Your task to perform on an android device: find which apps use the phone's location Image 0: 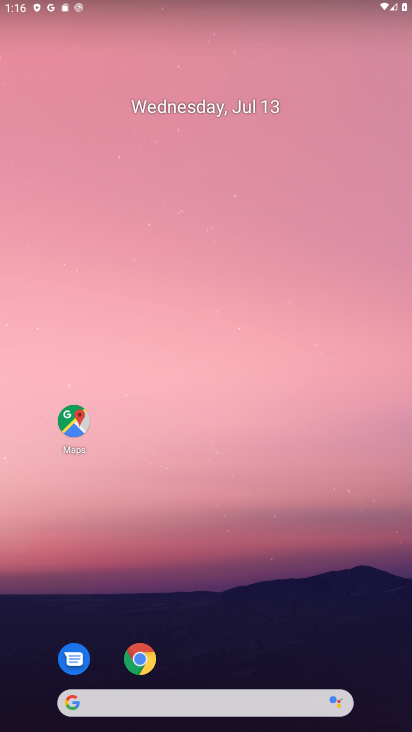
Step 0: drag from (249, 653) to (242, 127)
Your task to perform on an android device: find which apps use the phone's location Image 1: 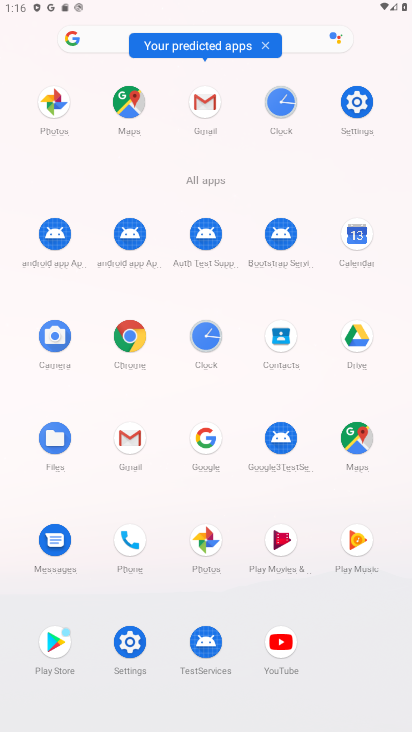
Step 1: click (355, 107)
Your task to perform on an android device: find which apps use the phone's location Image 2: 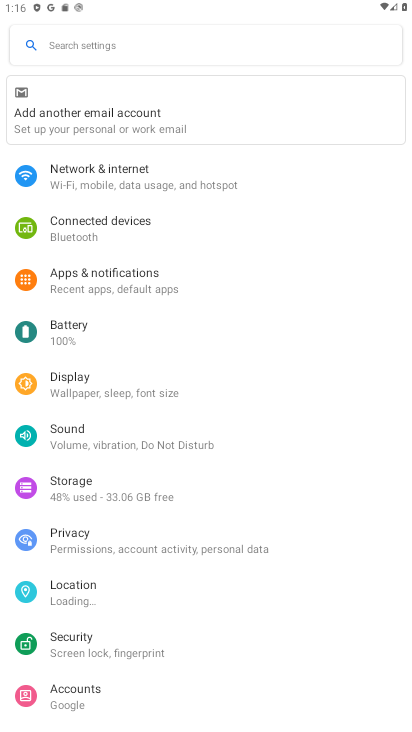
Step 2: click (84, 600)
Your task to perform on an android device: find which apps use the phone's location Image 3: 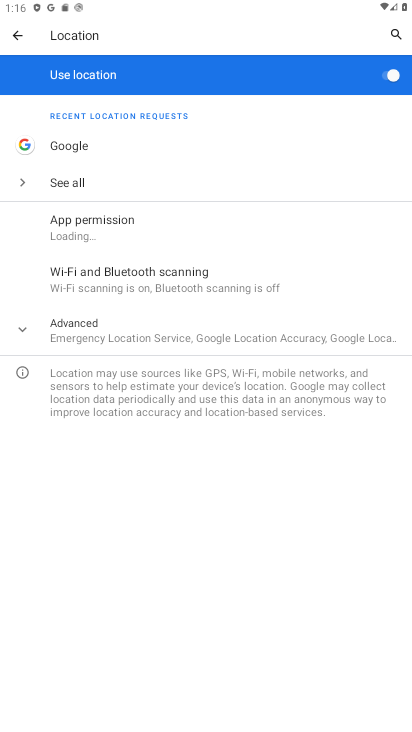
Step 3: click (155, 188)
Your task to perform on an android device: find which apps use the phone's location Image 4: 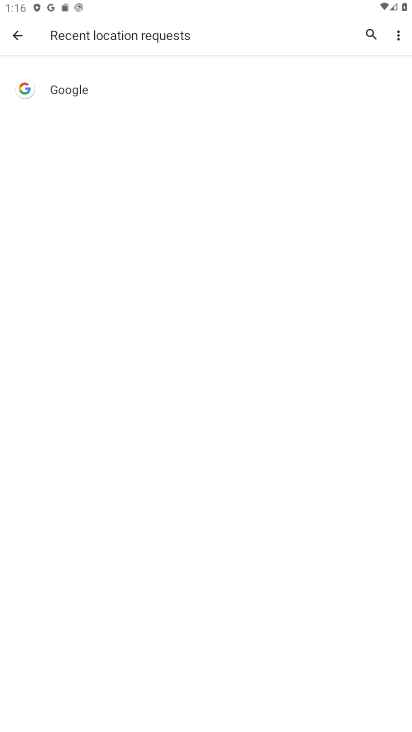
Step 4: task complete